Your task to perform on an android device: toggle show notifications on the lock screen Image 0: 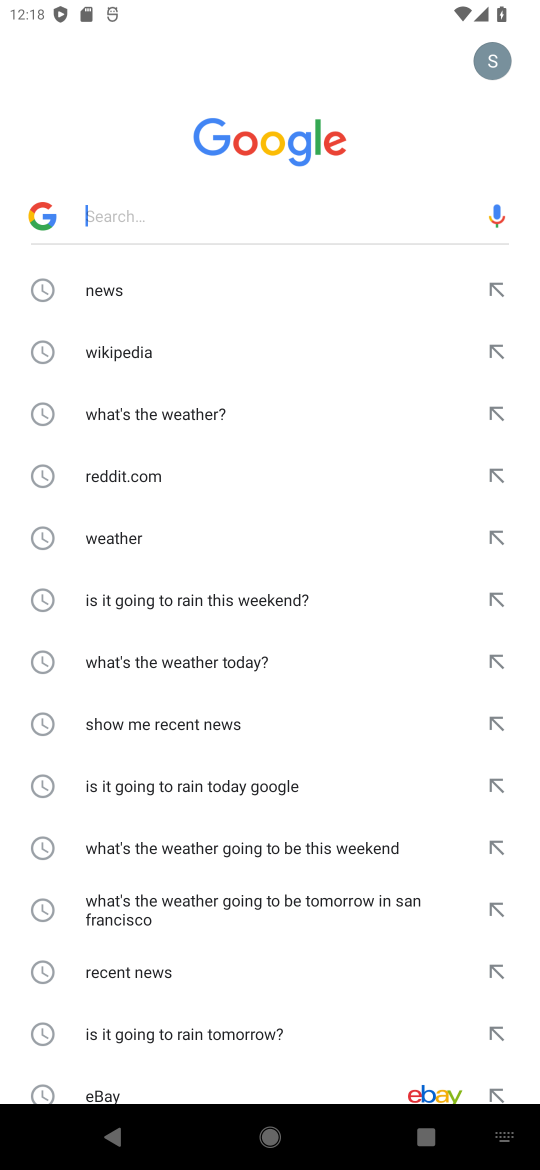
Step 0: press home button
Your task to perform on an android device: toggle show notifications on the lock screen Image 1: 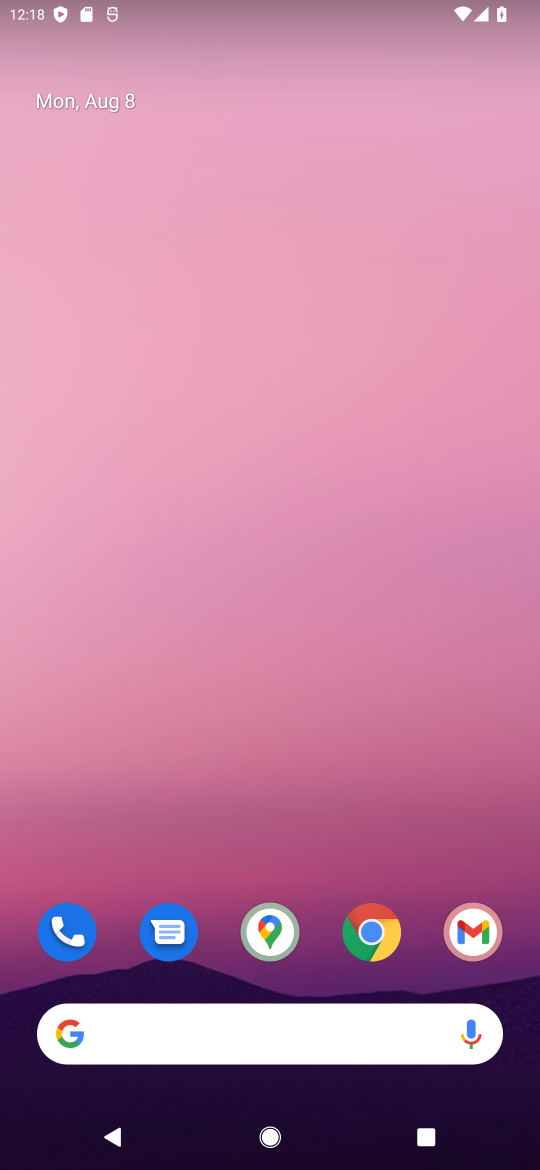
Step 1: drag from (290, 851) to (227, 331)
Your task to perform on an android device: toggle show notifications on the lock screen Image 2: 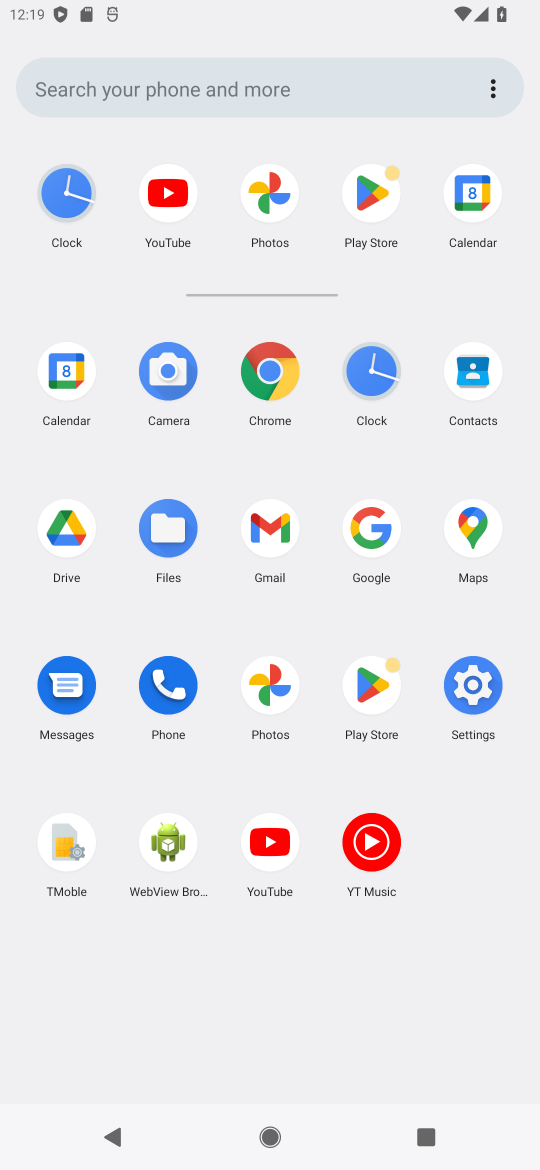
Step 2: click (473, 706)
Your task to perform on an android device: toggle show notifications on the lock screen Image 3: 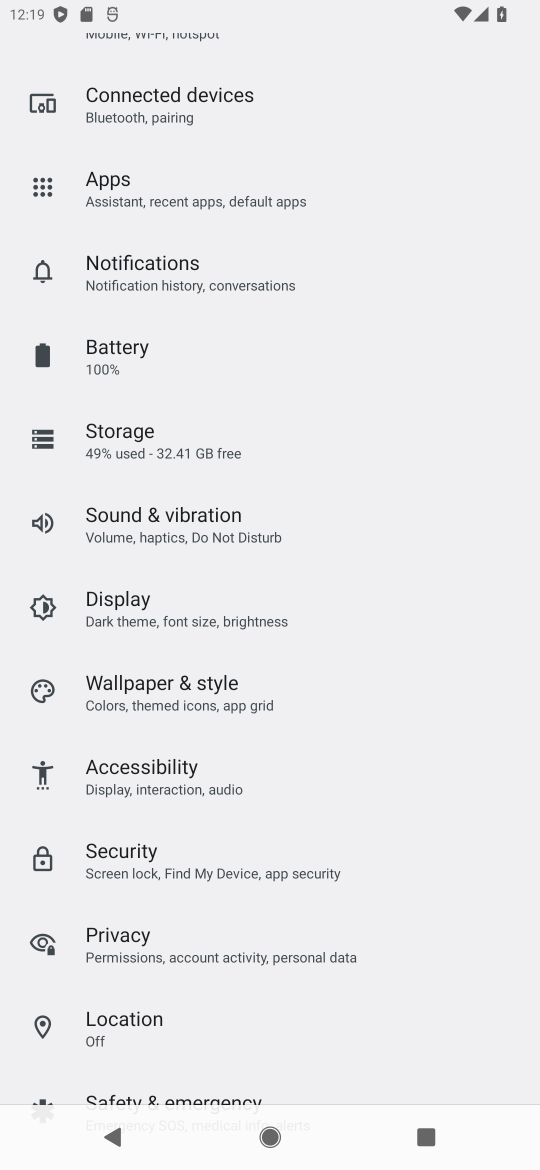
Step 3: click (199, 286)
Your task to perform on an android device: toggle show notifications on the lock screen Image 4: 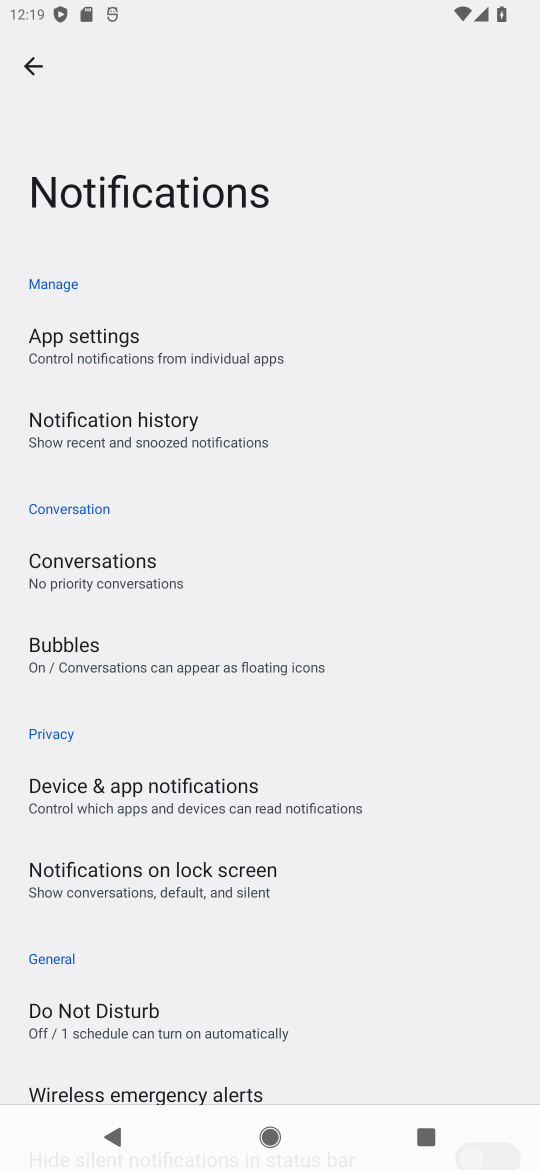
Step 4: click (200, 886)
Your task to perform on an android device: toggle show notifications on the lock screen Image 5: 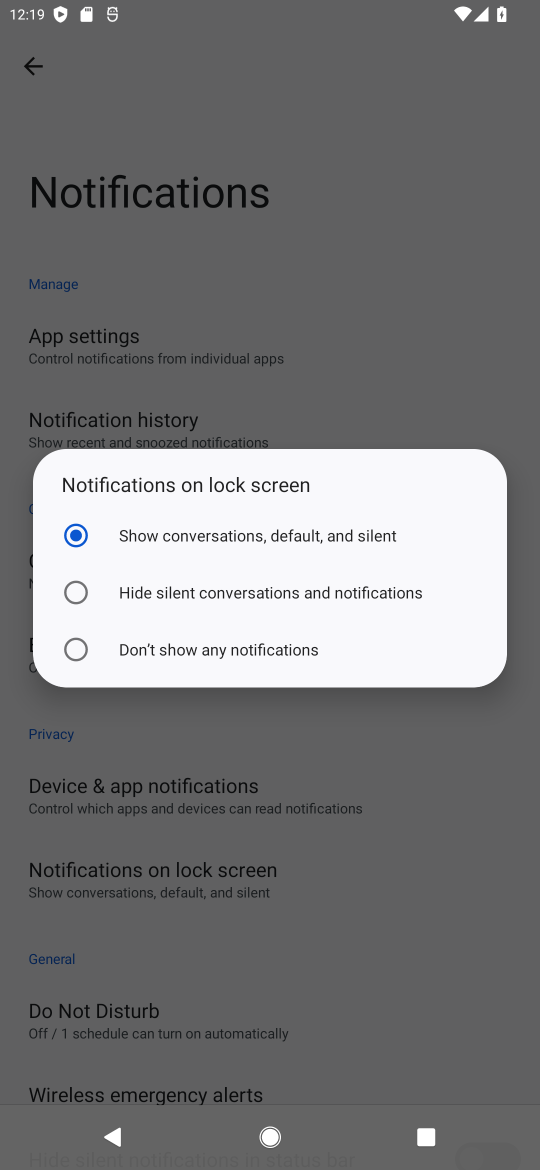
Step 5: click (232, 654)
Your task to perform on an android device: toggle show notifications on the lock screen Image 6: 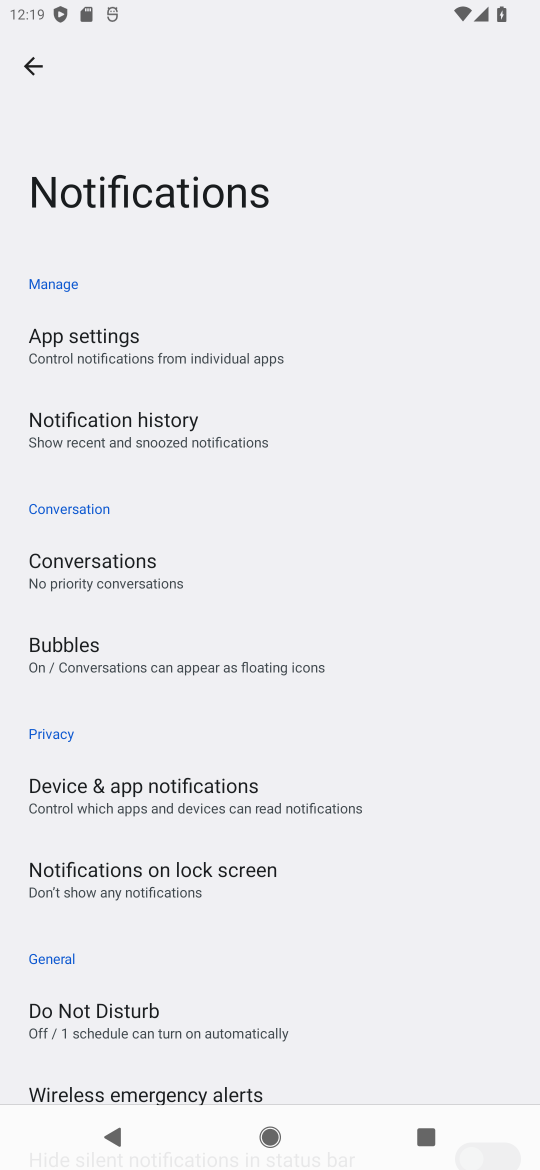
Step 6: task complete